Your task to perform on an android device: check storage Image 0: 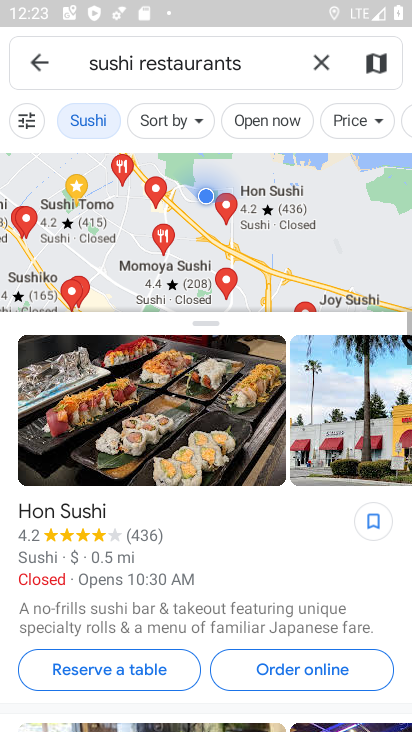
Step 0: press home button
Your task to perform on an android device: check storage Image 1: 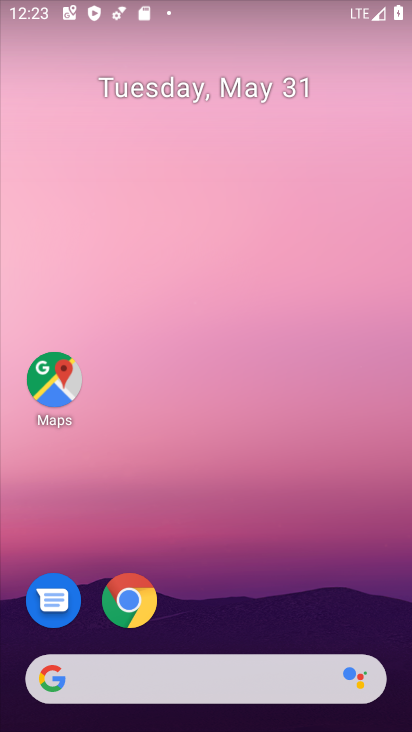
Step 1: drag from (226, 719) to (226, 632)
Your task to perform on an android device: check storage Image 2: 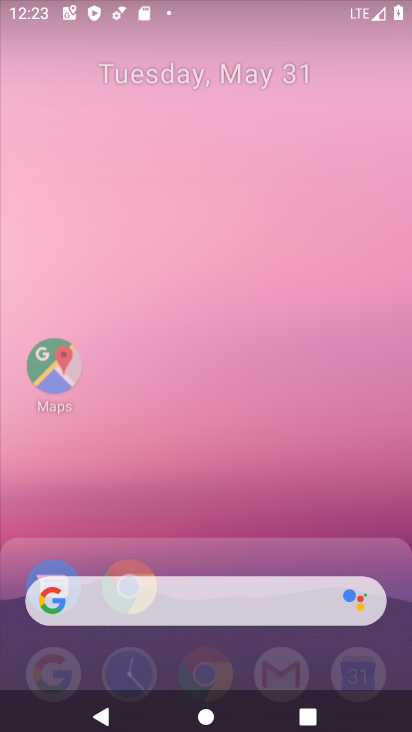
Step 2: click (224, 82)
Your task to perform on an android device: check storage Image 3: 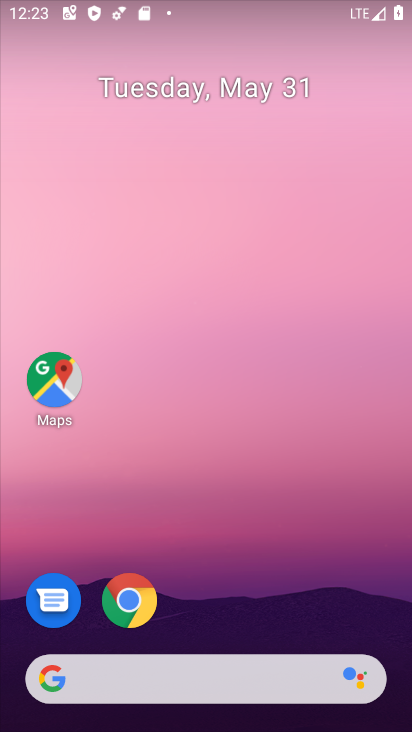
Step 3: click (222, 724)
Your task to perform on an android device: check storage Image 4: 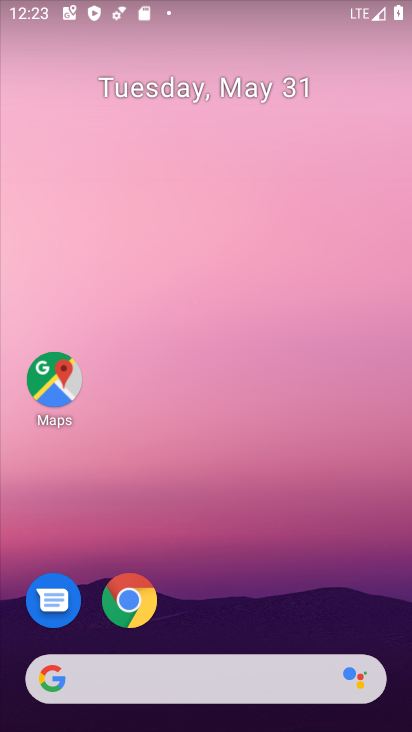
Step 4: click (203, 84)
Your task to perform on an android device: check storage Image 5: 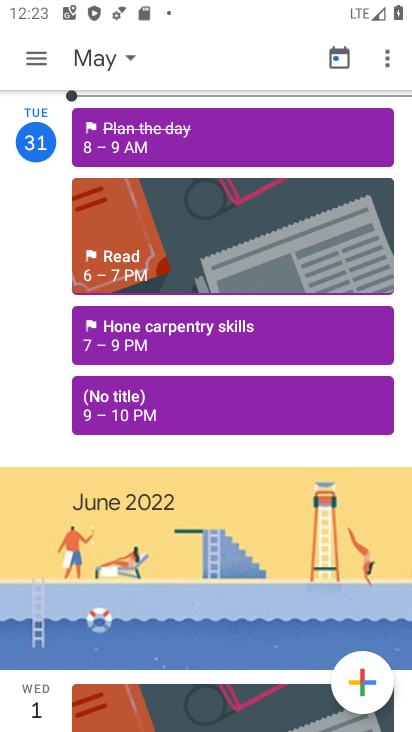
Step 5: press home button
Your task to perform on an android device: check storage Image 6: 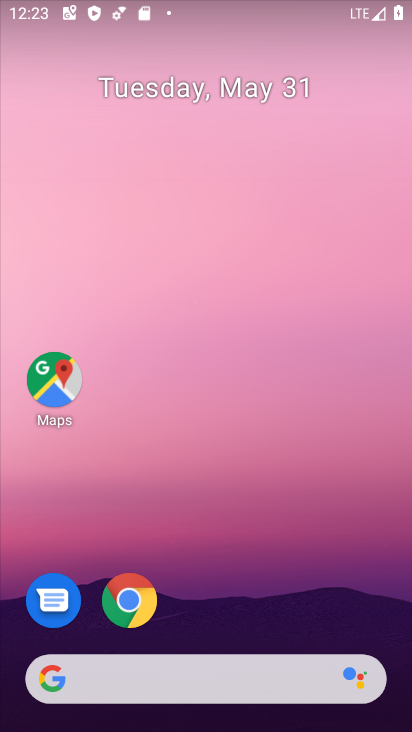
Step 6: drag from (213, 724) to (199, 353)
Your task to perform on an android device: check storage Image 7: 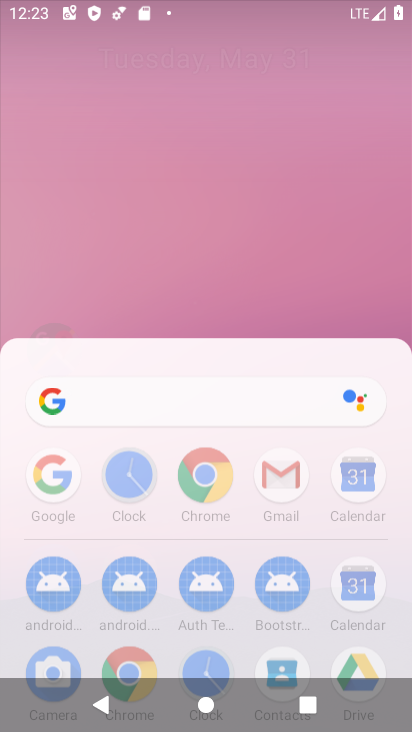
Step 7: drag from (200, 44) to (233, 6)
Your task to perform on an android device: check storage Image 8: 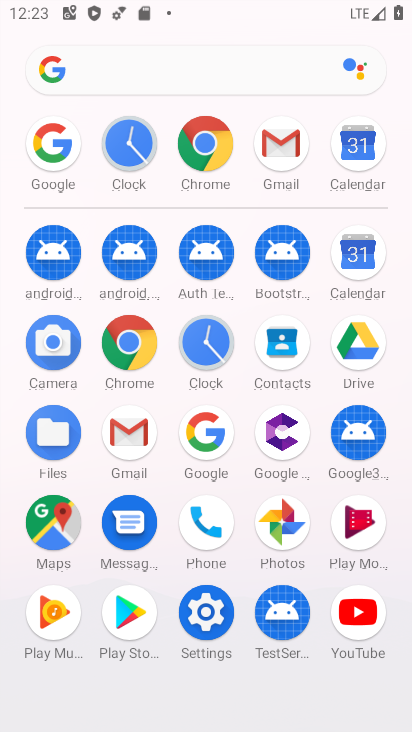
Step 8: click (193, 603)
Your task to perform on an android device: check storage Image 9: 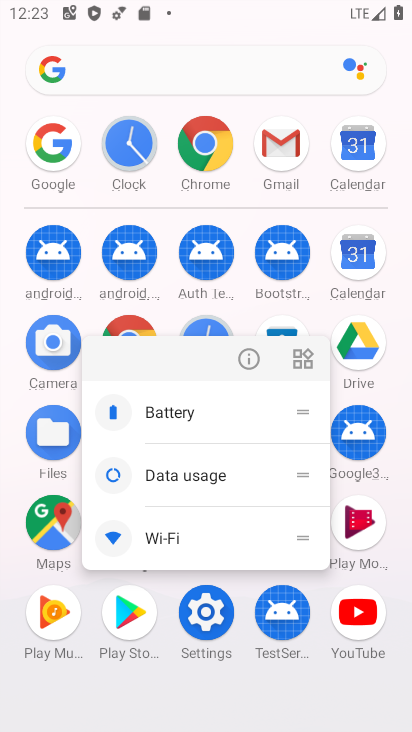
Step 9: click (199, 612)
Your task to perform on an android device: check storage Image 10: 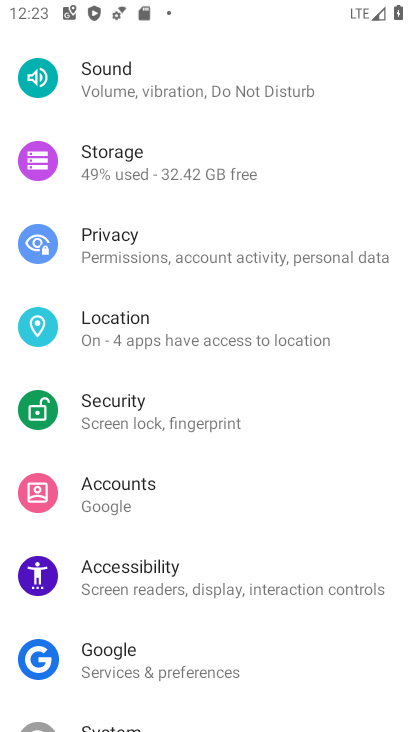
Step 10: click (115, 159)
Your task to perform on an android device: check storage Image 11: 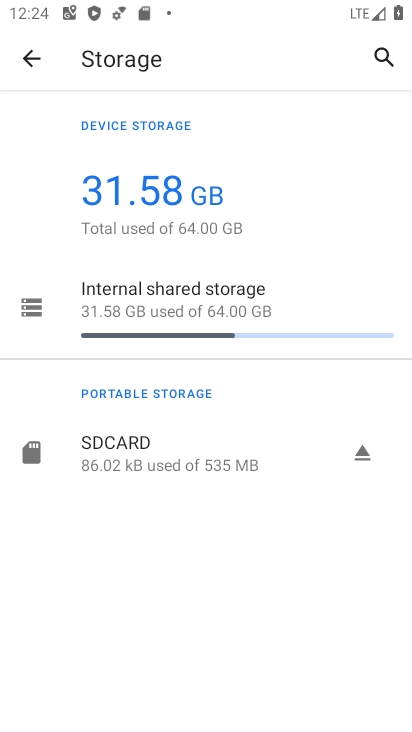
Step 11: task complete